Your task to perform on an android device: Set the phone to "Do not disturb". Image 0: 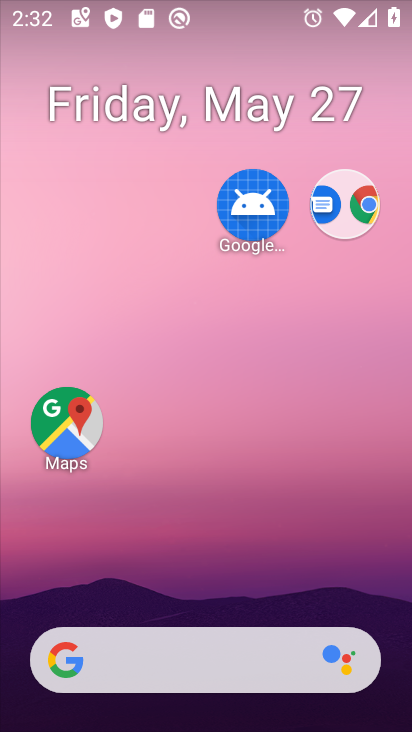
Step 0: drag from (211, 588) to (211, 346)
Your task to perform on an android device: Set the phone to "Do not disturb". Image 1: 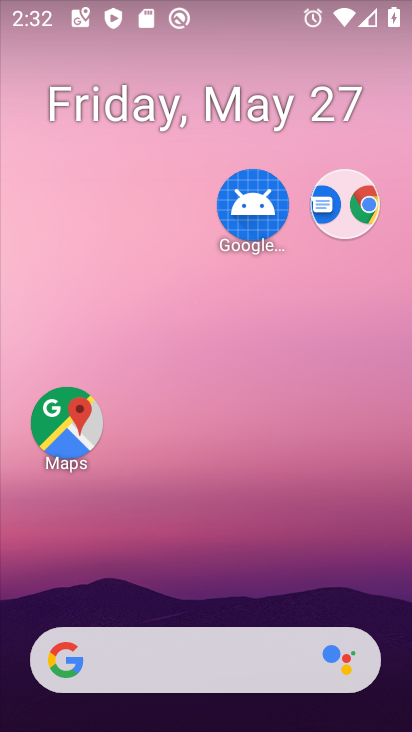
Step 1: drag from (223, 11) to (190, 363)
Your task to perform on an android device: Set the phone to "Do not disturb". Image 2: 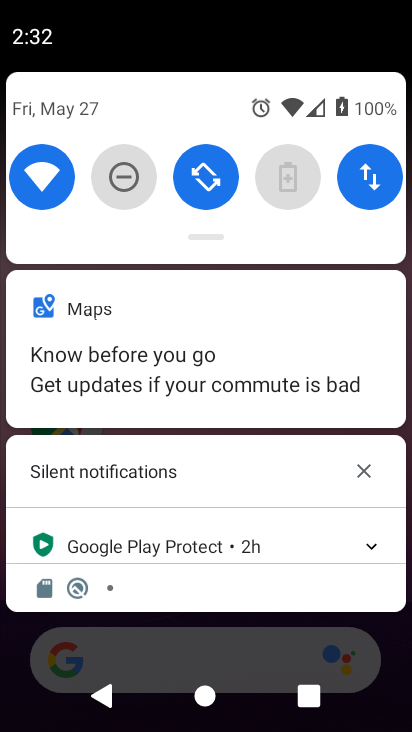
Step 2: click (136, 178)
Your task to perform on an android device: Set the phone to "Do not disturb". Image 3: 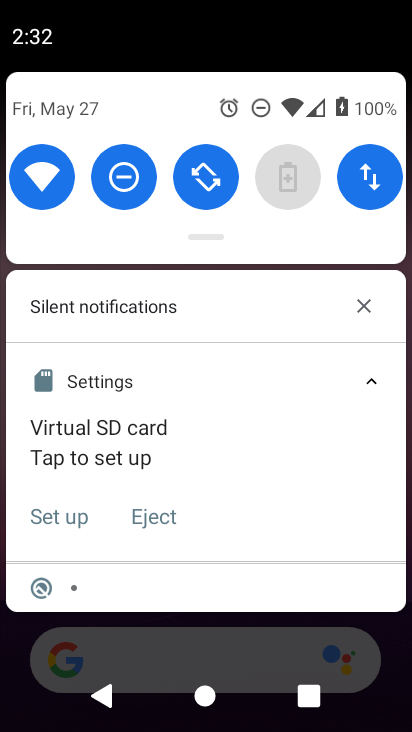
Step 3: task complete